Your task to perform on an android device: What's the weather today? Image 0: 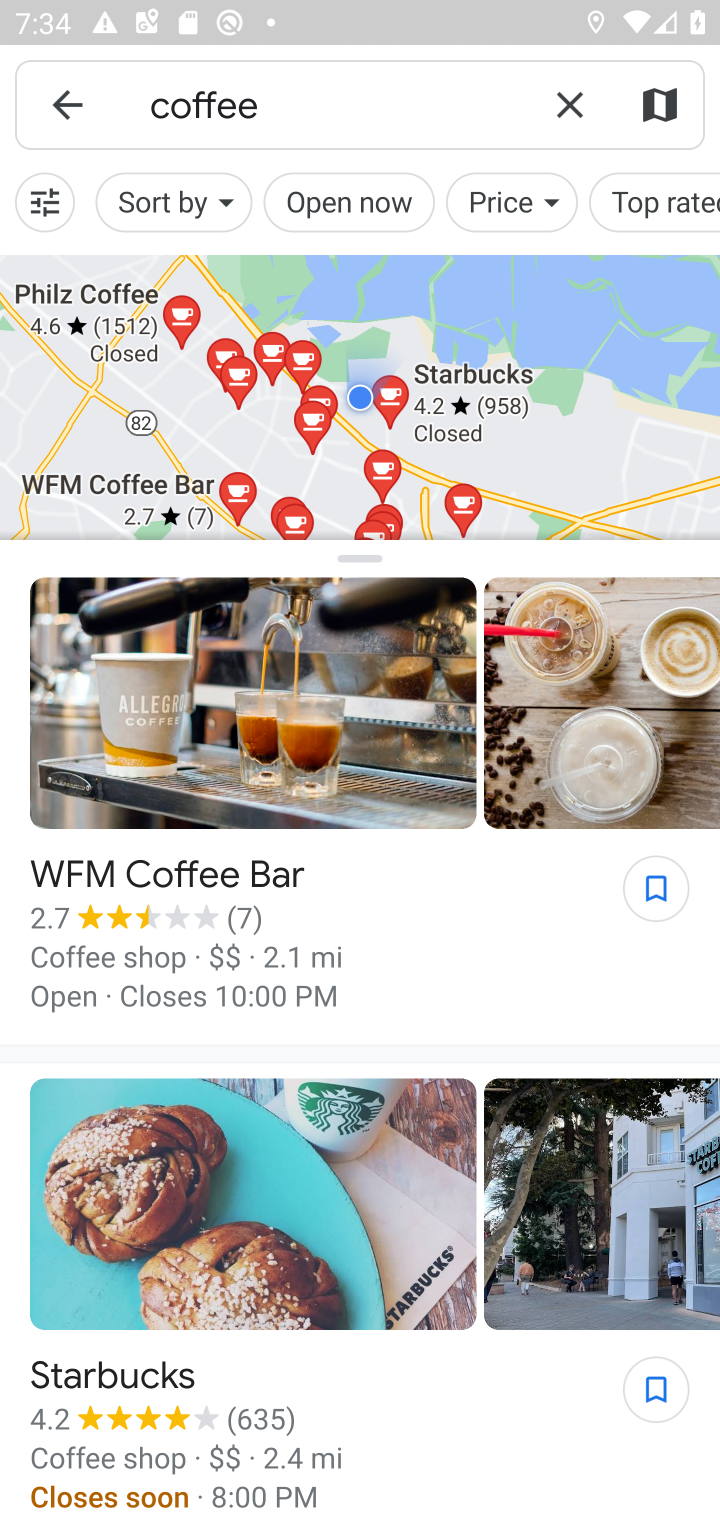
Step 0: press home button
Your task to perform on an android device: What's the weather today? Image 1: 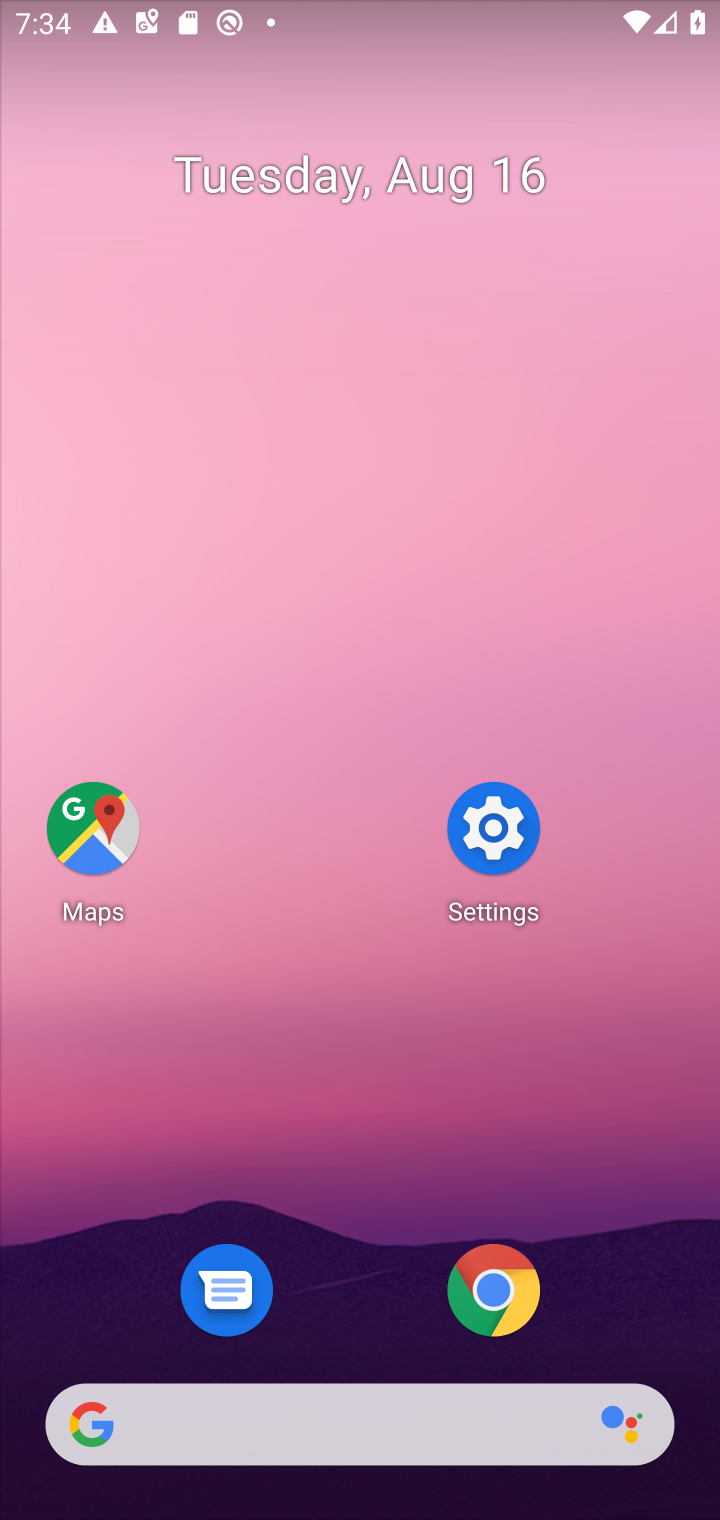
Step 1: click (222, 1426)
Your task to perform on an android device: What's the weather today? Image 2: 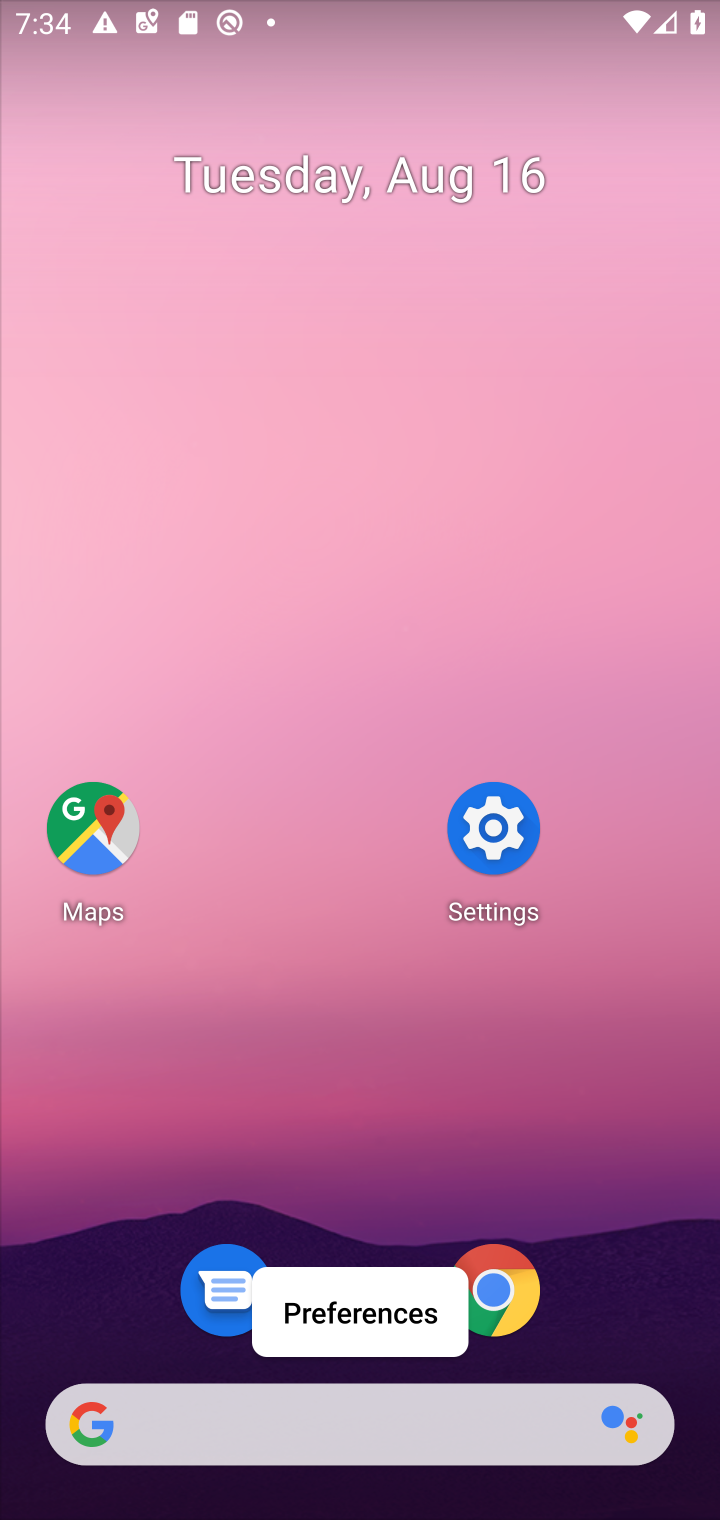
Step 2: click (263, 1439)
Your task to perform on an android device: What's the weather today? Image 3: 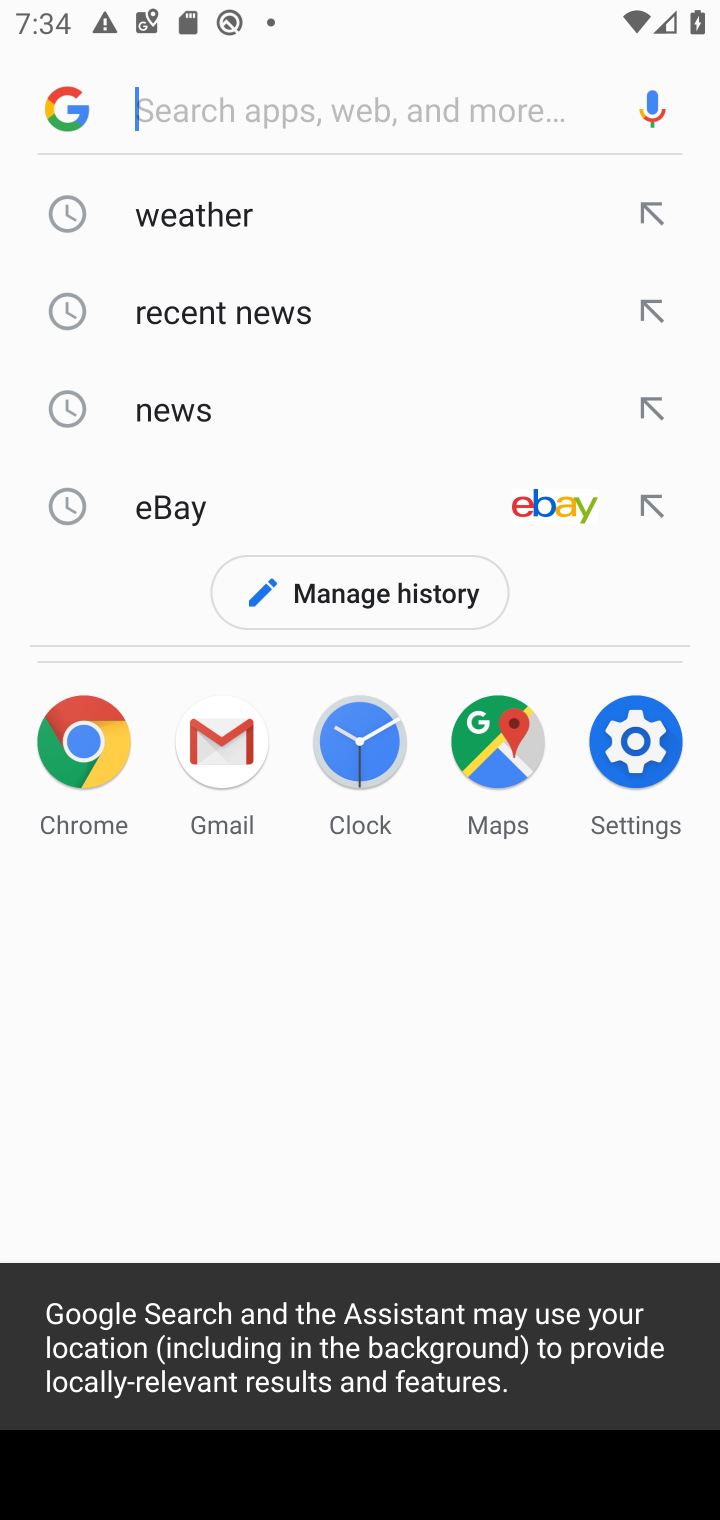
Step 3: click (169, 210)
Your task to perform on an android device: What's the weather today? Image 4: 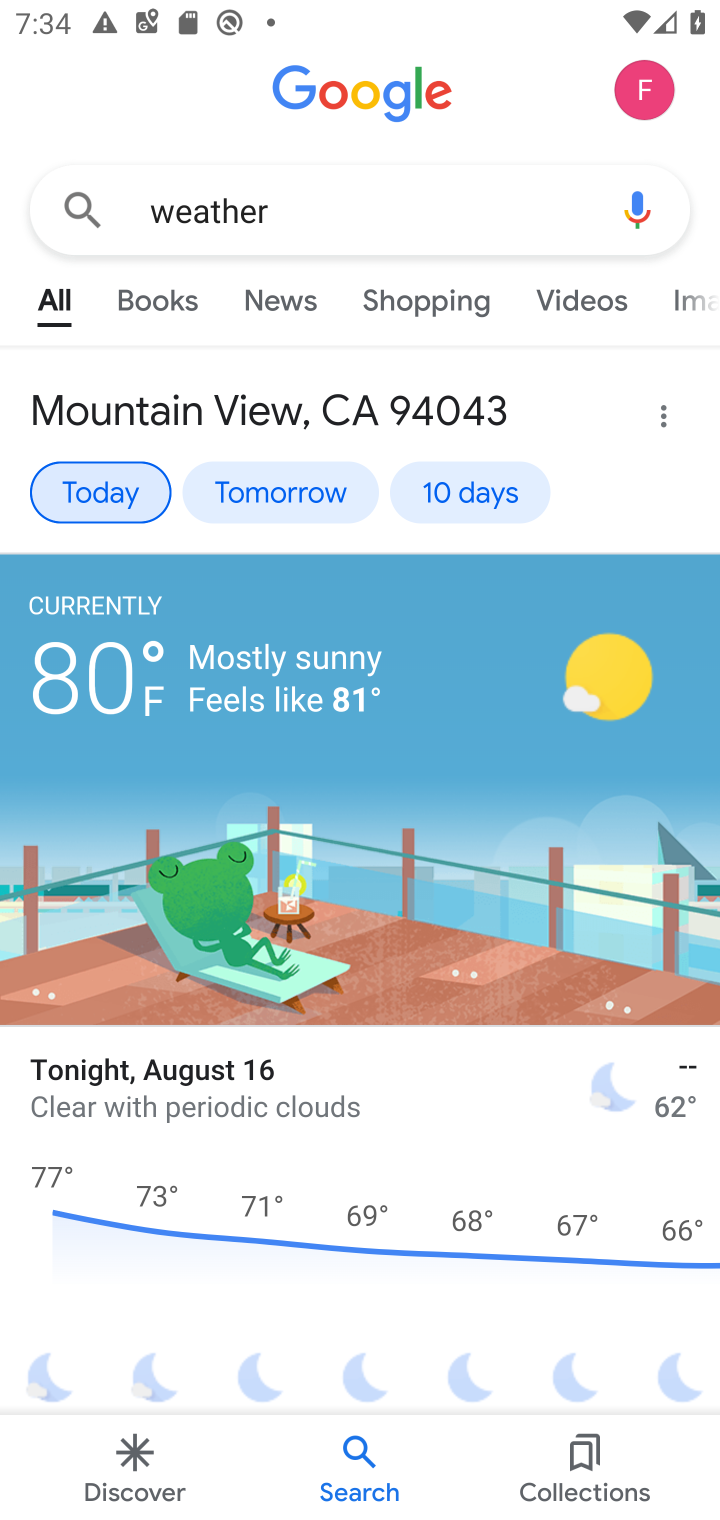
Step 4: task complete